Your task to perform on an android device: open a bookmark in the chrome app Image 0: 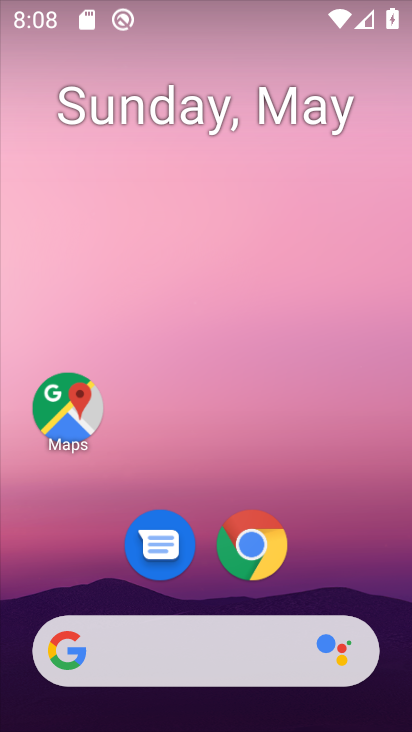
Step 0: click (236, 545)
Your task to perform on an android device: open a bookmark in the chrome app Image 1: 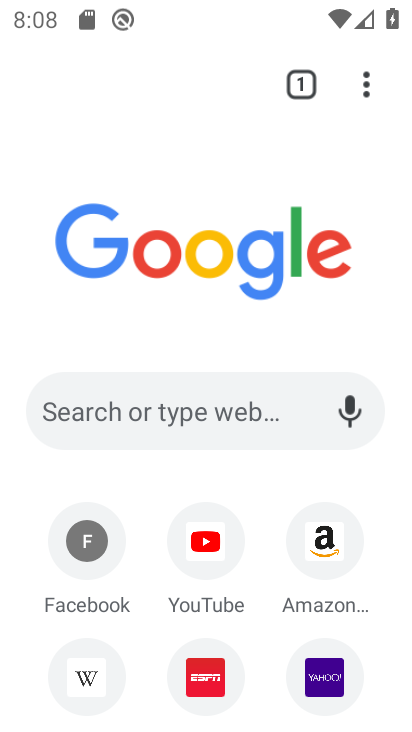
Step 1: drag from (371, 84) to (314, 305)
Your task to perform on an android device: open a bookmark in the chrome app Image 2: 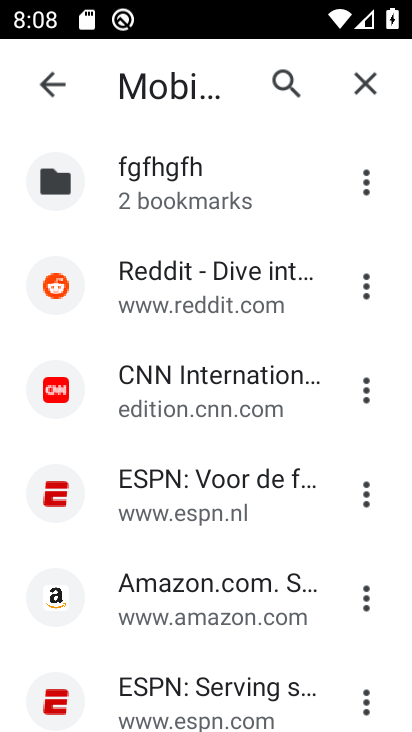
Step 2: click (213, 287)
Your task to perform on an android device: open a bookmark in the chrome app Image 3: 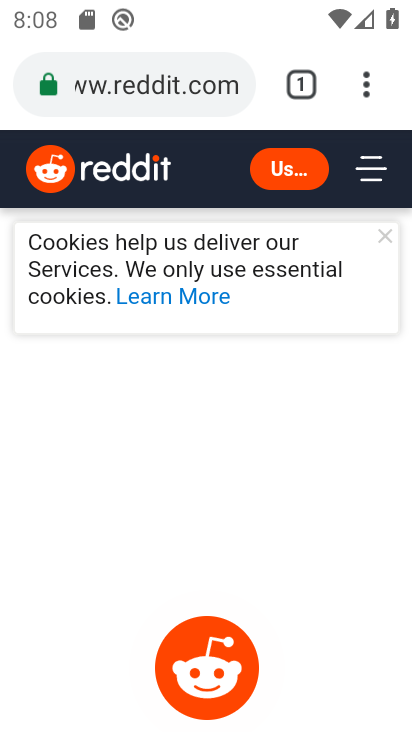
Step 3: task complete